Your task to perform on an android device: toggle pop-ups in chrome Image 0: 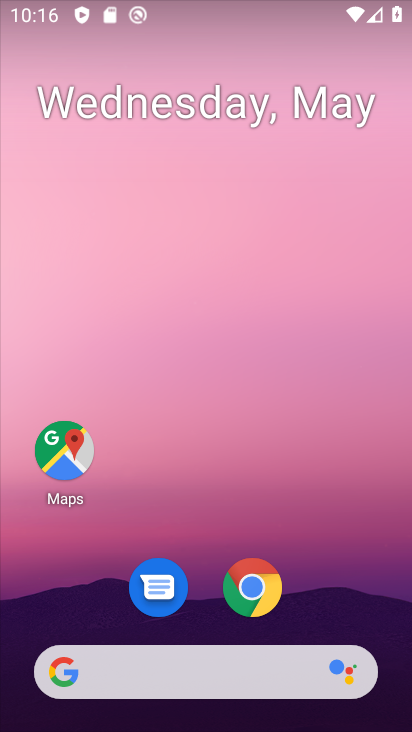
Step 0: drag from (357, 601) to (255, 100)
Your task to perform on an android device: toggle pop-ups in chrome Image 1: 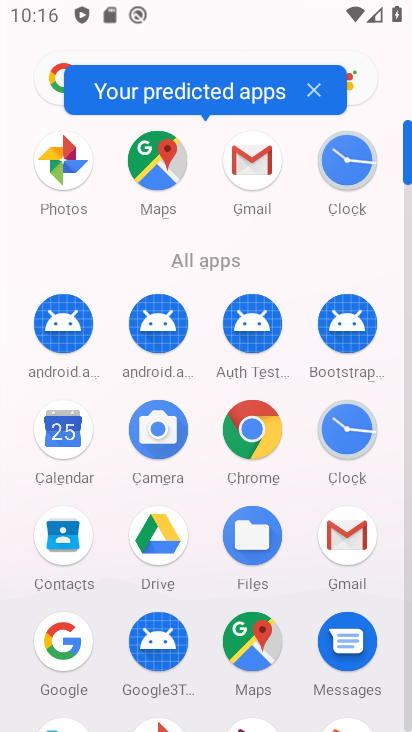
Step 1: click (263, 416)
Your task to perform on an android device: toggle pop-ups in chrome Image 2: 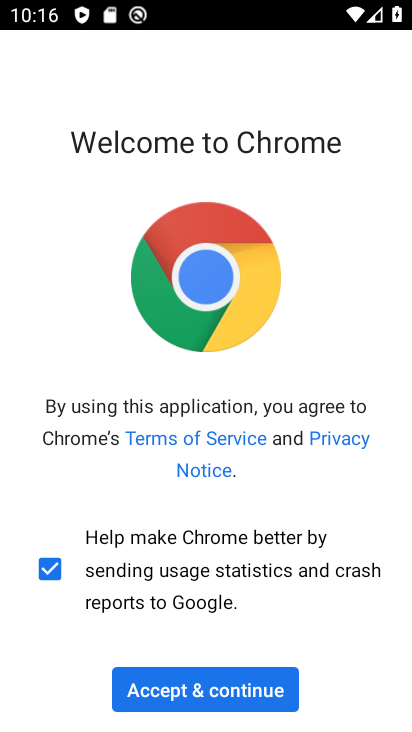
Step 2: click (194, 691)
Your task to perform on an android device: toggle pop-ups in chrome Image 3: 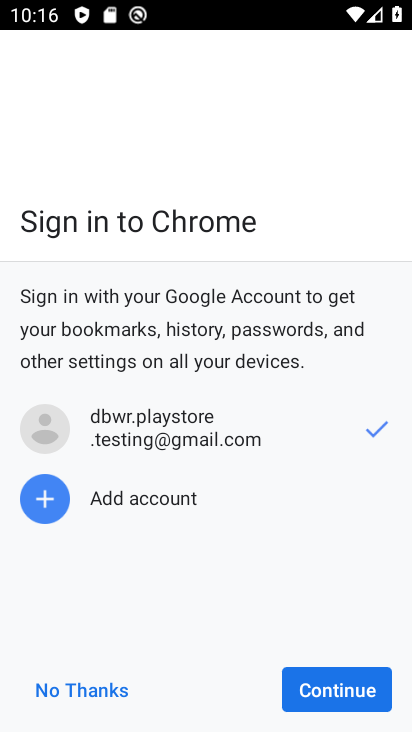
Step 3: click (348, 681)
Your task to perform on an android device: toggle pop-ups in chrome Image 4: 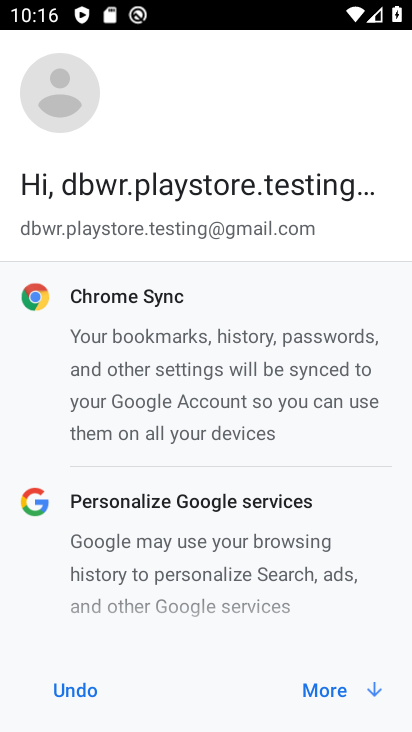
Step 4: click (348, 681)
Your task to perform on an android device: toggle pop-ups in chrome Image 5: 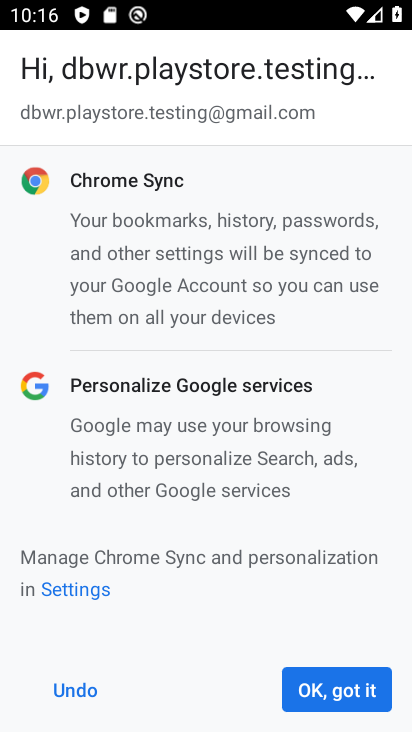
Step 5: click (348, 681)
Your task to perform on an android device: toggle pop-ups in chrome Image 6: 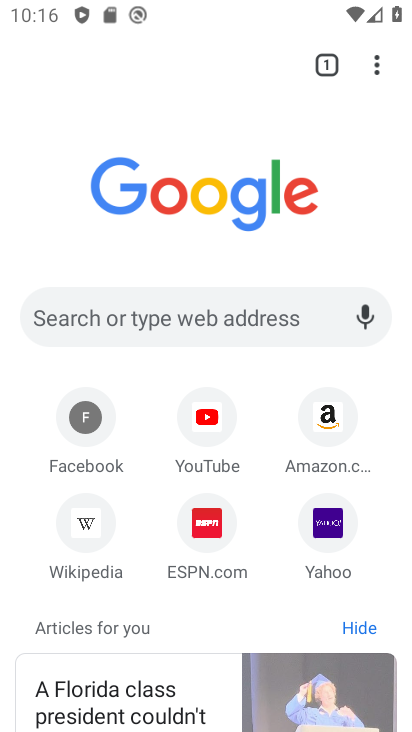
Step 6: drag from (379, 49) to (181, 549)
Your task to perform on an android device: toggle pop-ups in chrome Image 7: 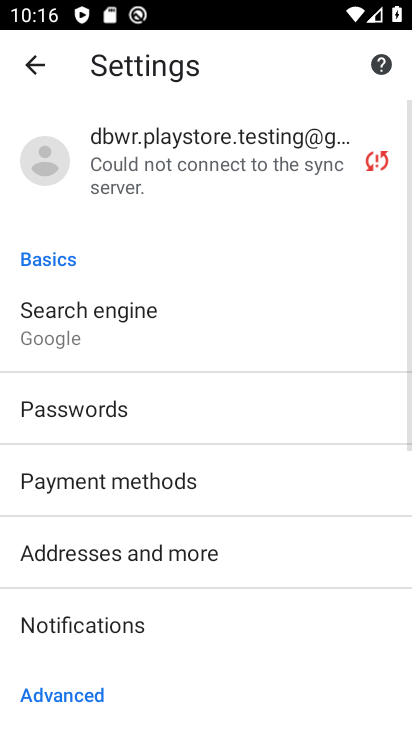
Step 7: drag from (181, 549) to (175, 241)
Your task to perform on an android device: toggle pop-ups in chrome Image 8: 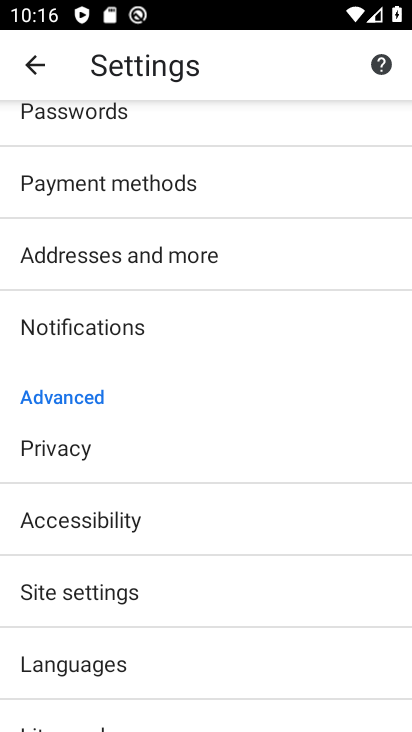
Step 8: drag from (165, 620) to (144, 358)
Your task to perform on an android device: toggle pop-ups in chrome Image 9: 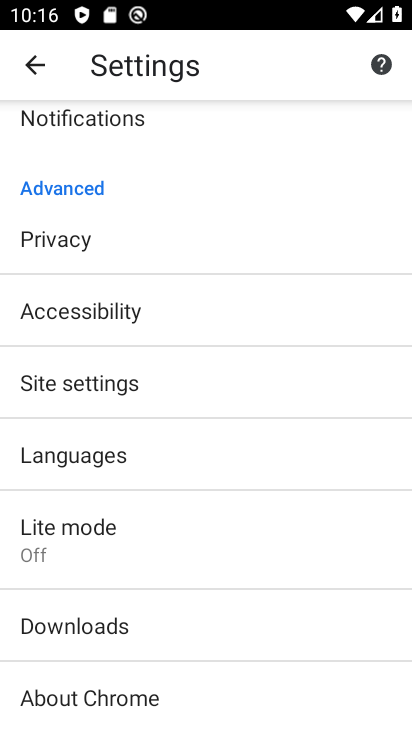
Step 9: click (150, 393)
Your task to perform on an android device: toggle pop-ups in chrome Image 10: 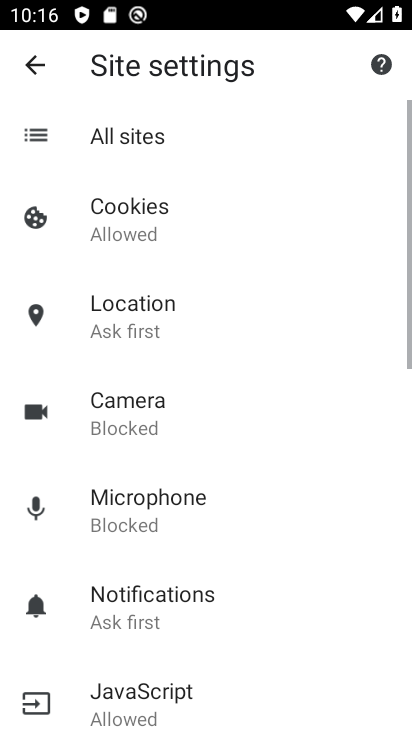
Step 10: drag from (150, 673) to (183, 13)
Your task to perform on an android device: toggle pop-ups in chrome Image 11: 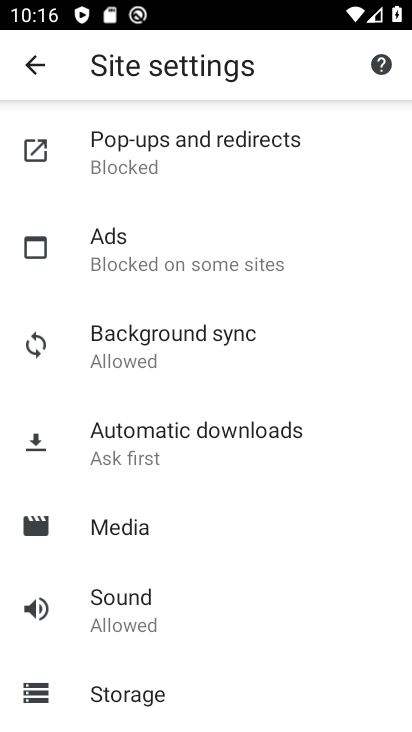
Step 11: click (210, 157)
Your task to perform on an android device: toggle pop-ups in chrome Image 12: 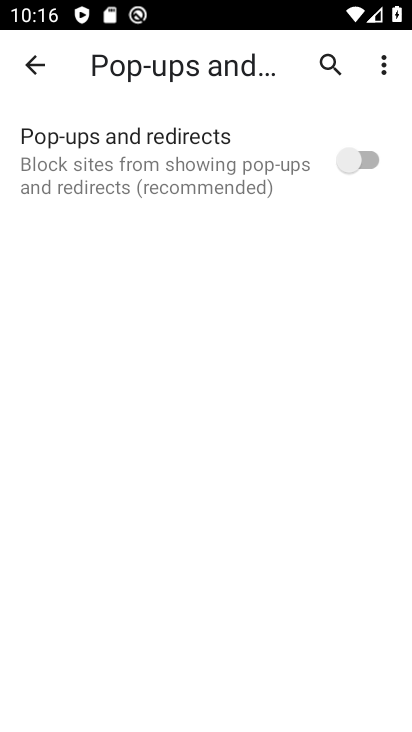
Step 12: click (210, 157)
Your task to perform on an android device: toggle pop-ups in chrome Image 13: 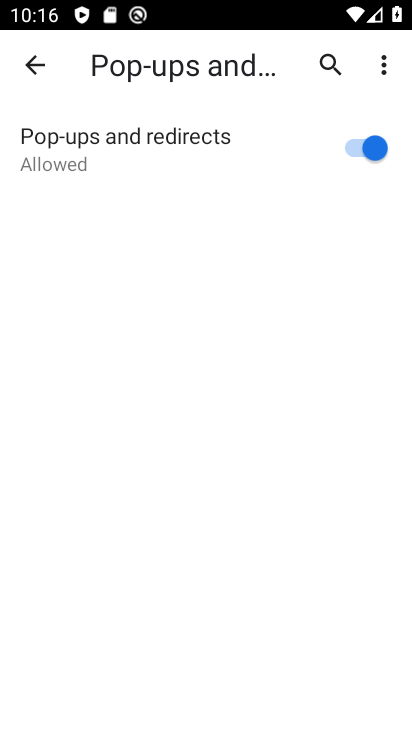
Step 13: task complete